Your task to perform on an android device: open chrome and create a bookmark for the current page Image 0: 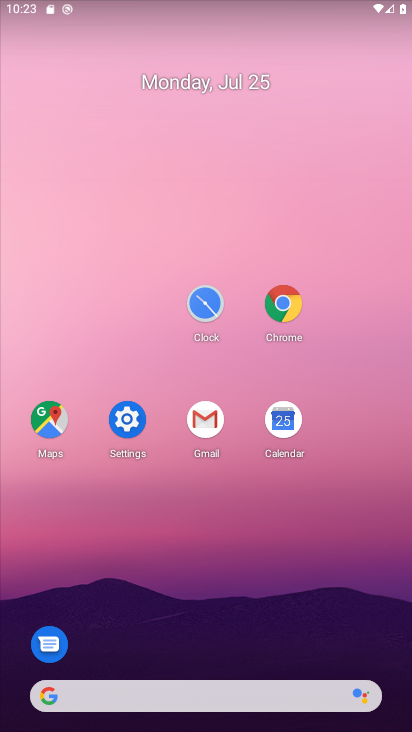
Step 0: click (293, 308)
Your task to perform on an android device: open chrome and create a bookmark for the current page Image 1: 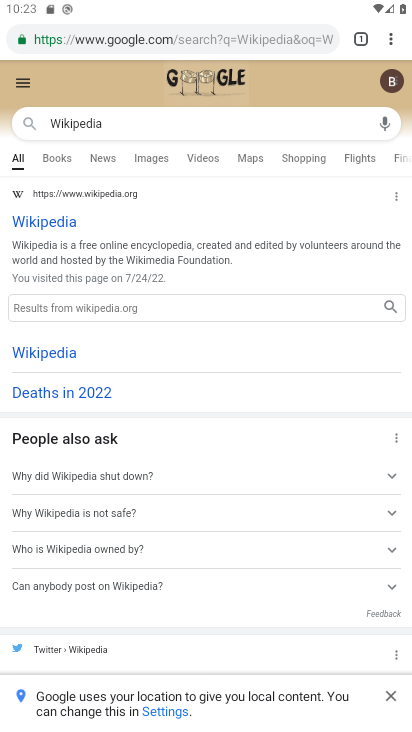
Step 1: click (394, 40)
Your task to perform on an android device: open chrome and create a bookmark for the current page Image 2: 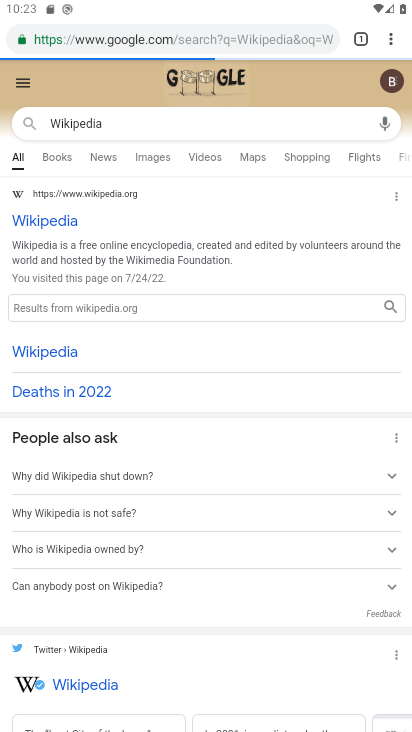
Step 2: click (387, 40)
Your task to perform on an android device: open chrome and create a bookmark for the current page Image 3: 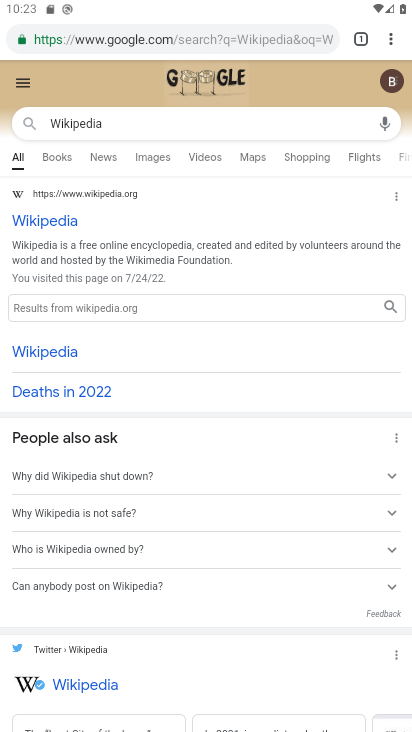
Step 3: task complete